Your task to perform on an android device: Search for Mexican restaurants on Maps Image 0: 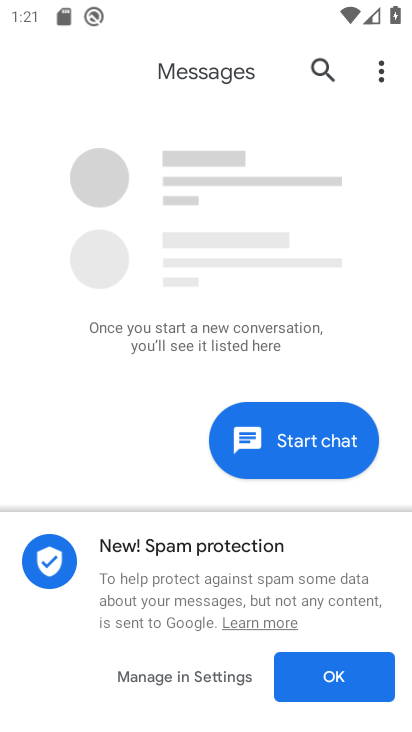
Step 0: press back button
Your task to perform on an android device: Search for Mexican restaurants on Maps Image 1: 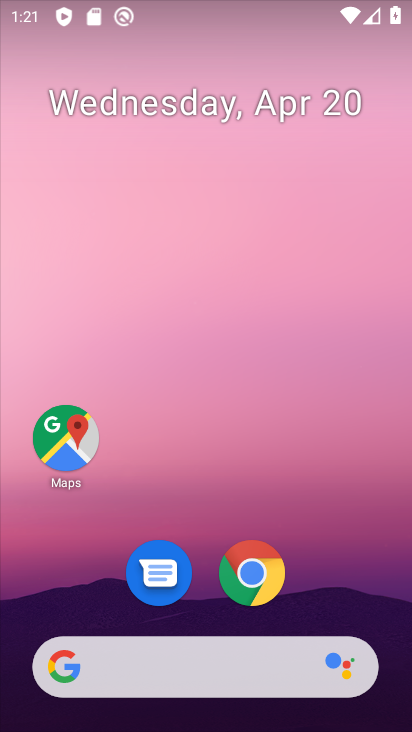
Step 1: click (29, 414)
Your task to perform on an android device: Search for Mexican restaurants on Maps Image 2: 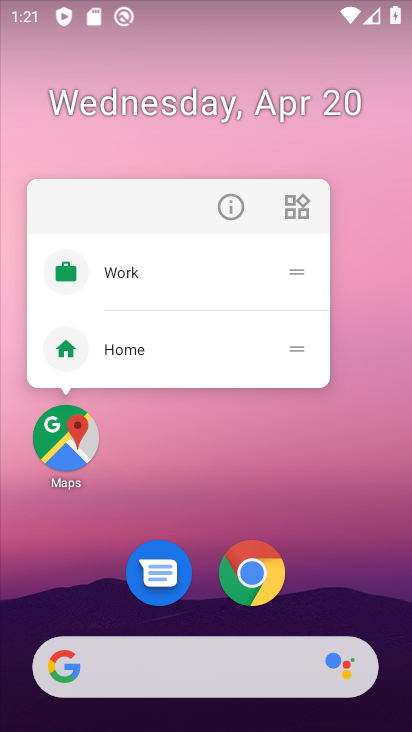
Step 2: click (59, 444)
Your task to perform on an android device: Search for Mexican restaurants on Maps Image 3: 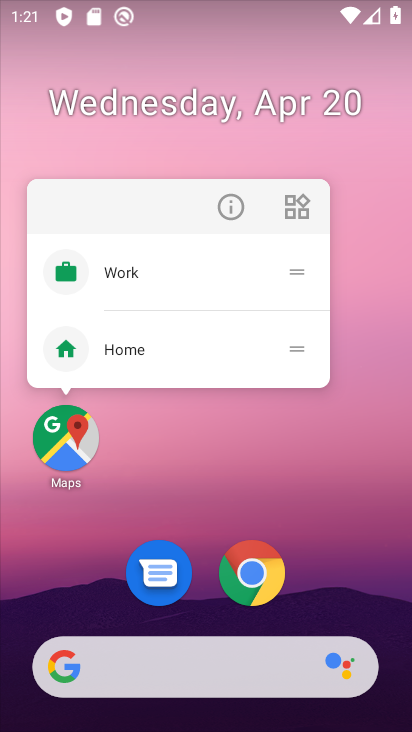
Step 3: click (66, 472)
Your task to perform on an android device: Search for Mexican restaurants on Maps Image 4: 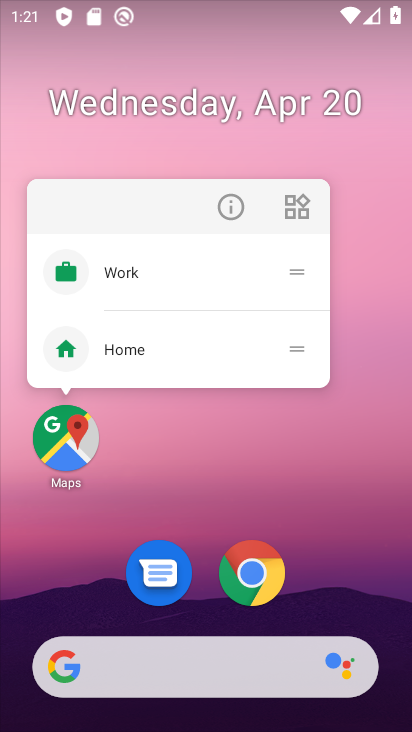
Step 4: click (65, 471)
Your task to perform on an android device: Search for Mexican restaurants on Maps Image 5: 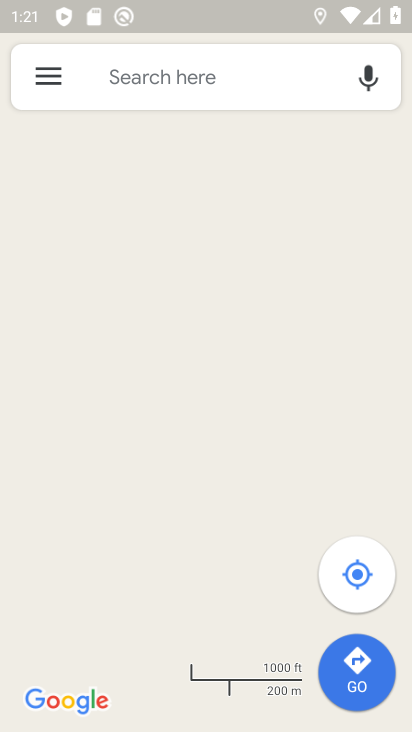
Step 5: click (230, 87)
Your task to perform on an android device: Search for Mexican restaurants on Maps Image 6: 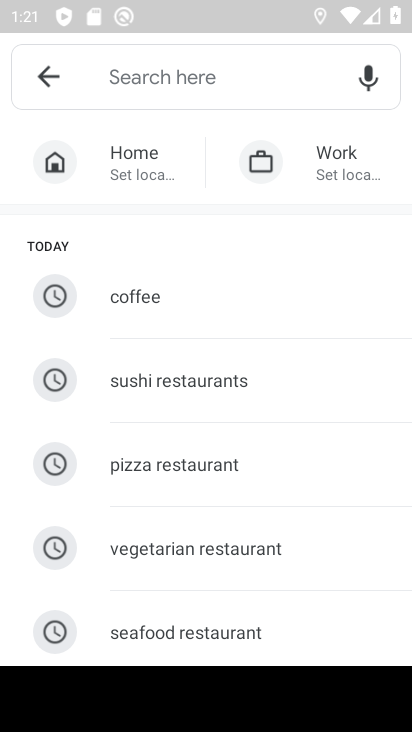
Step 6: type "mexican restaurants "
Your task to perform on an android device: Search for Mexican restaurants on Maps Image 7: 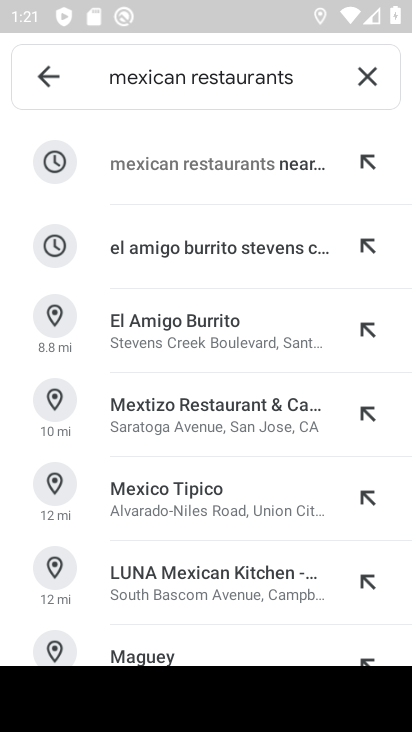
Step 7: click (221, 167)
Your task to perform on an android device: Search for Mexican restaurants on Maps Image 8: 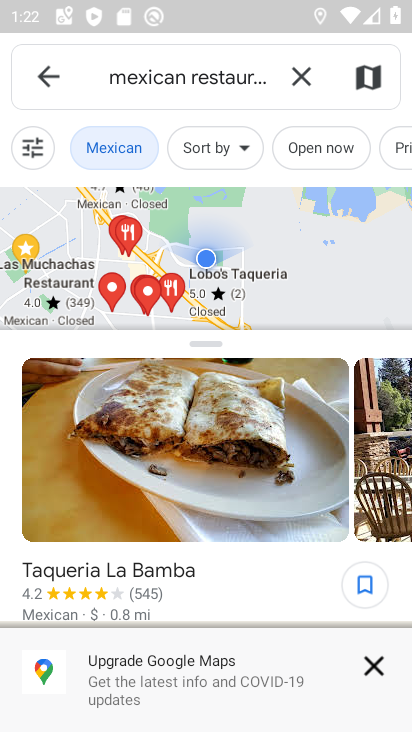
Step 8: click (378, 670)
Your task to perform on an android device: Search for Mexican restaurants on Maps Image 9: 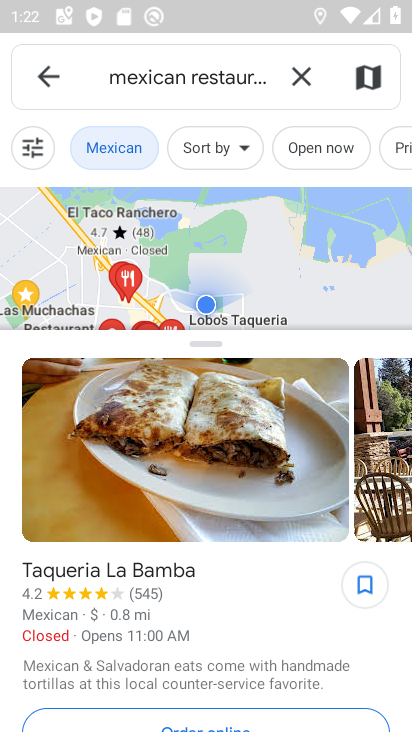
Step 9: task complete